Your task to perform on an android device: open device folders in google photos Image 0: 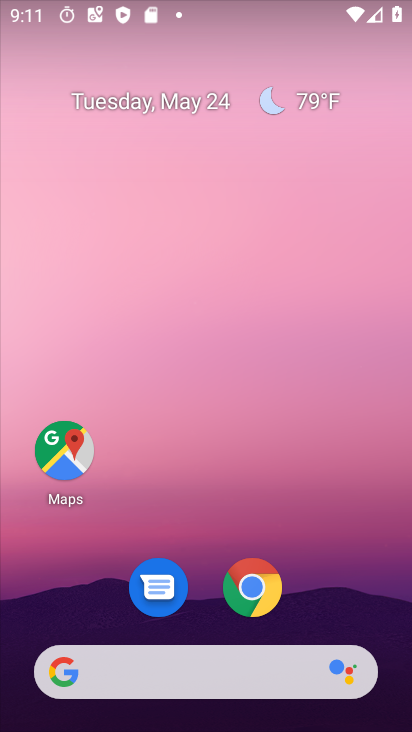
Step 0: drag from (338, 606) to (257, 117)
Your task to perform on an android device: open device folders in google photos Image 1: 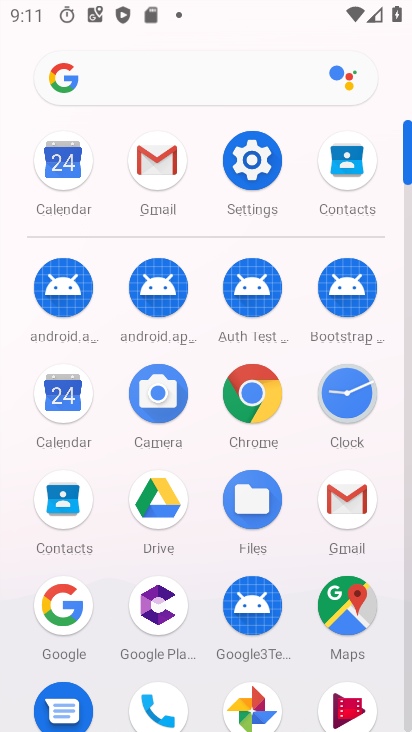
Step 1: drag from (288, 605) to (302, 354)
Your task to perform on an android device: open device folders in google photos Image 2: 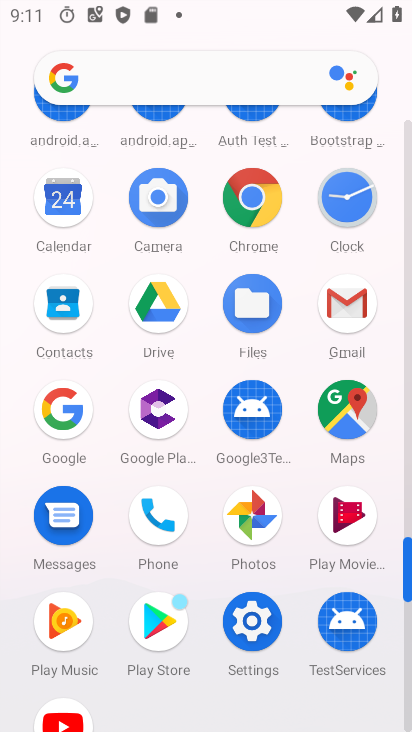
Step 2: click (250, 512)
Your task to perform on an android device: open device folders in google photos Image 3: 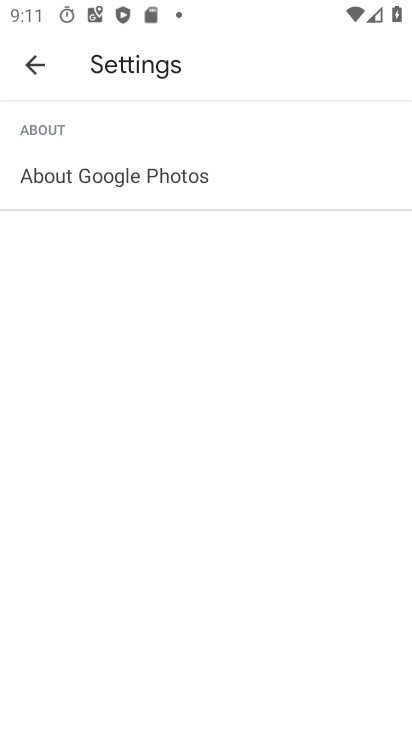
Step 3: click (38, 73)
Your task to perform on an android device: open device folders in google photos Image 4: 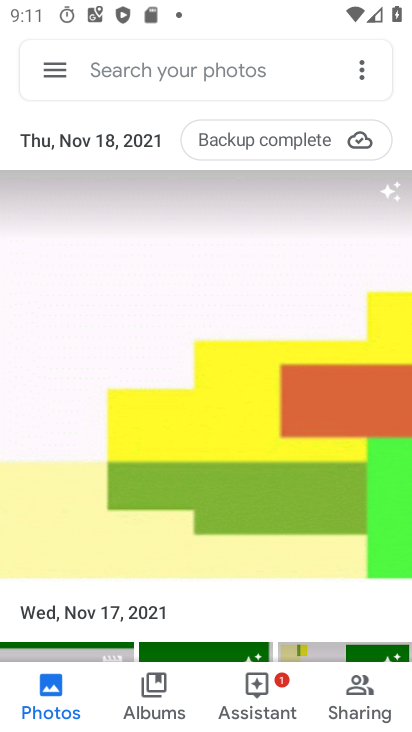
Step 4: click (48, 65)
Your task to perform on an android device: open device folders in google photos Image 5: 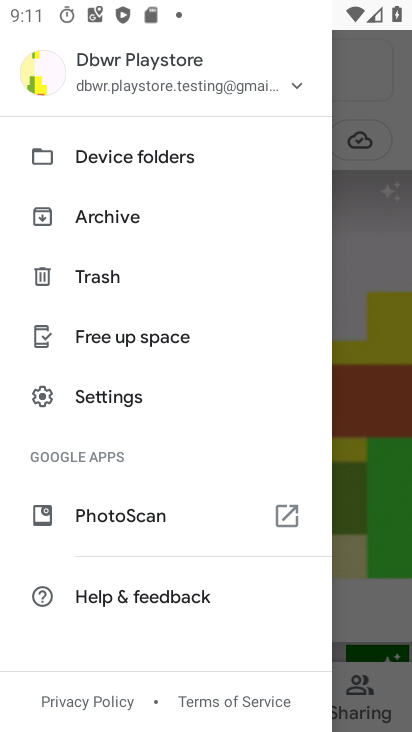
Step 5: click (97, 159)
Your task to perform on an android device: open device folders in google photos Image 6: 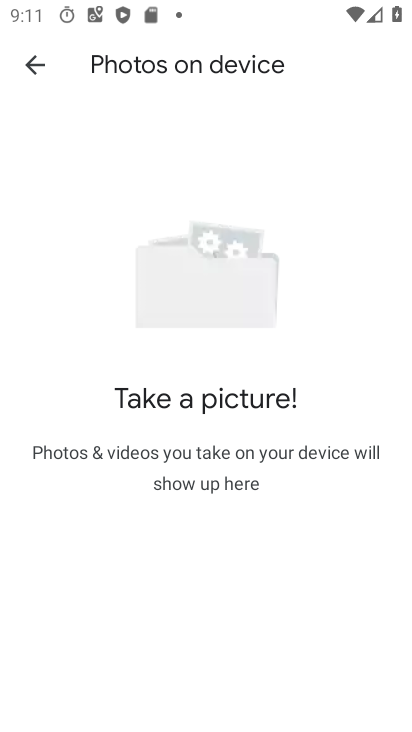
Step 6: task complete